Your task to perform on an android device: Open accessibility settings Image 0: 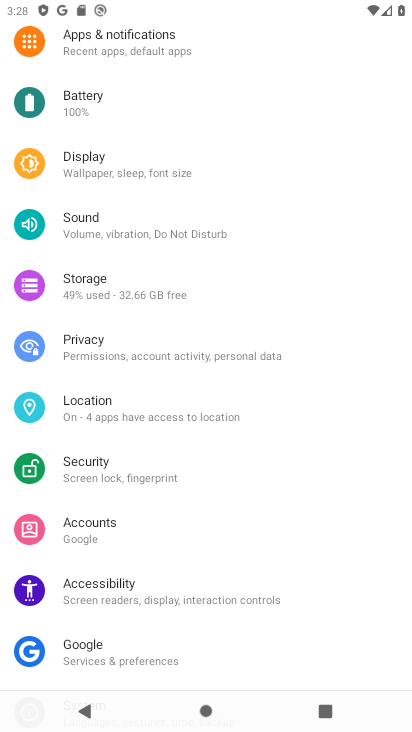
Step 0: click (102, 605)
Your task to perform on an android device: Open accessibility settings Image 1: 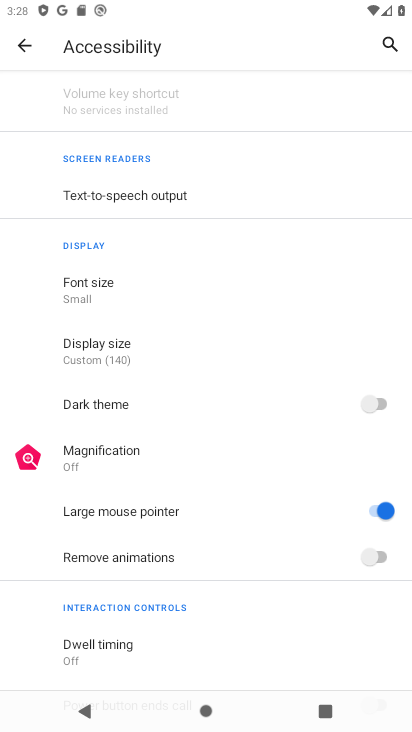
Step 1: task complete